Your task to perform on an android device: Go to ESPN.com Image 0: 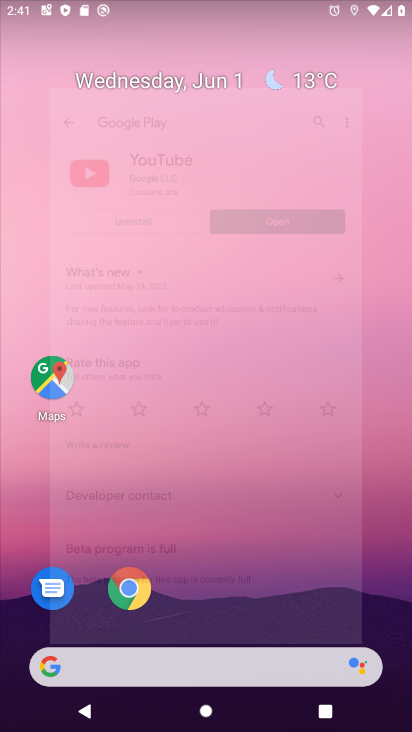
Step 0: drag from (238, 511) to (264, 114)
Your task to perform on an android device: Go to ESPN.com Image 1: 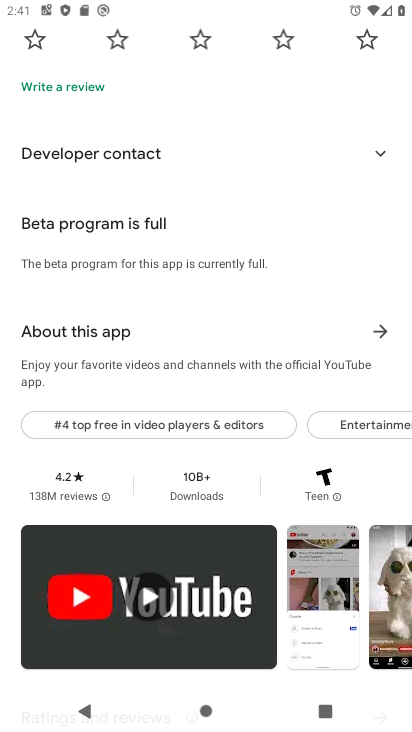
Step 1: press back button
Your task to perform on an android device: Go to ESPN.com Image 2: 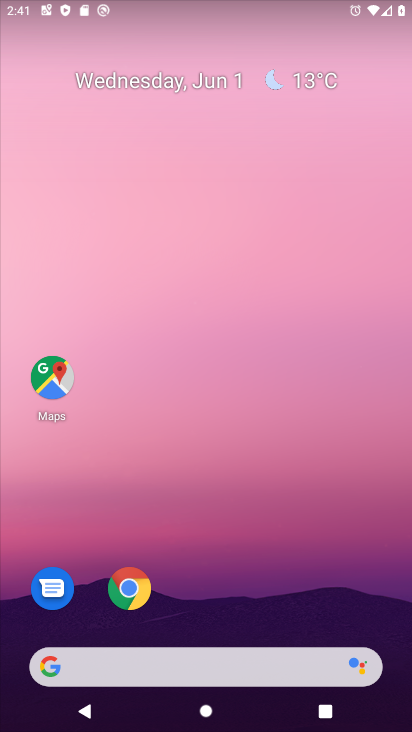
Step 2: click (129, 585)
Your task to perform on an android device: Go to ESPN.com Image 3: 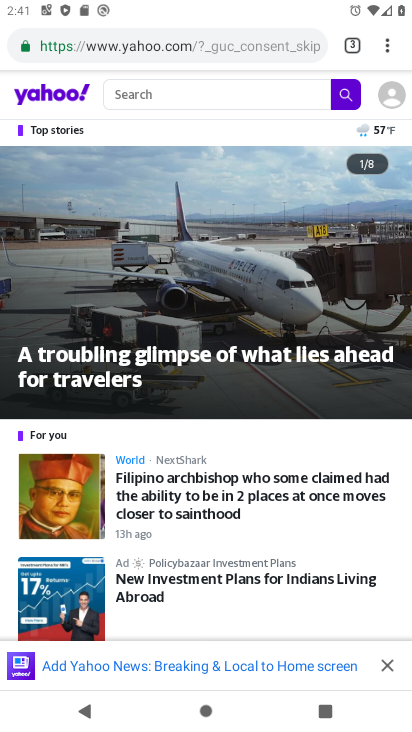
Step 3: click (357, 32)
Your task to perform on an android device: Go to ESPN.com Image 4: 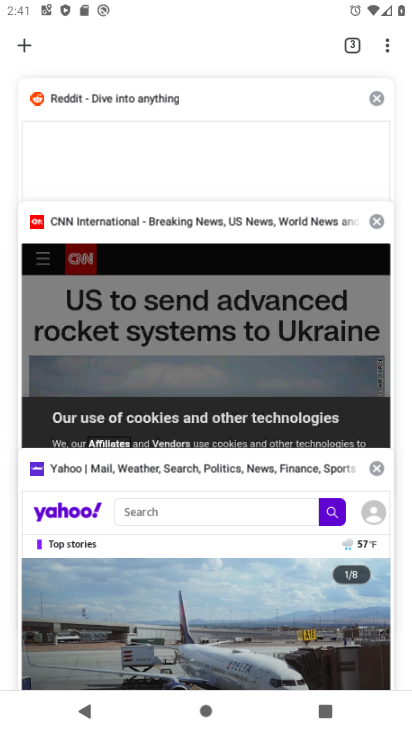
Step 4: click (26, 36)
Your task to perform on an android device: Go to ESPN.com Image 5: 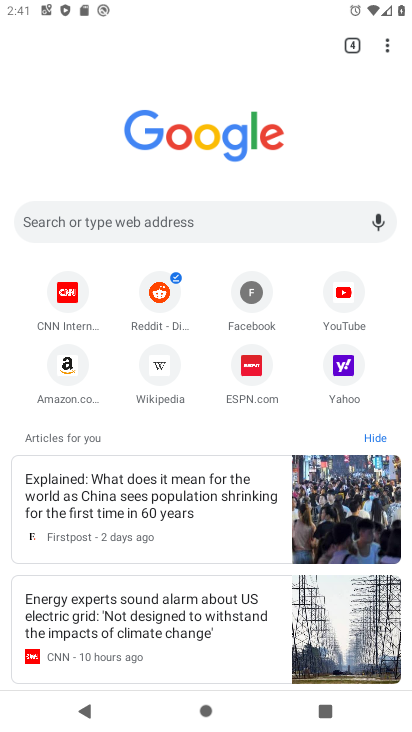
Step 5: click (226, 357)
Your task to perform on an android device: Go to ESPN.com Image 6: 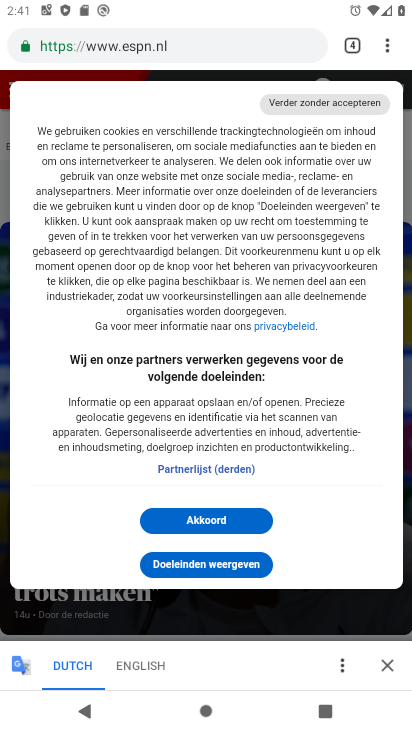
Step 6: task complete